Your task to perform on an android device: open device folders in google photos Image 0: 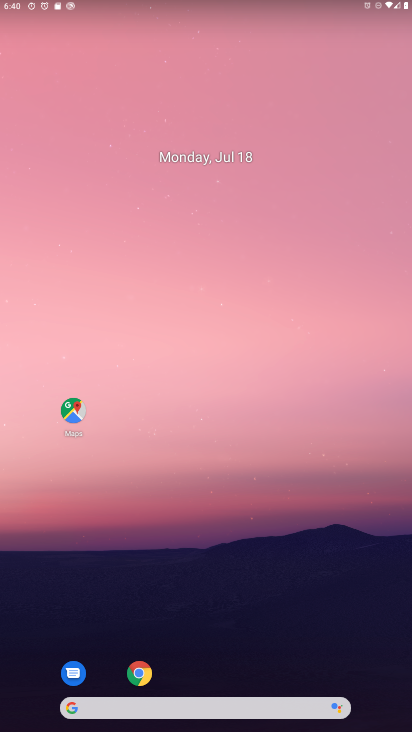
Step 0: drag from (259, 635) to (238, 354)
Your task to perform on an android device: open device folders in google photos Image 1: 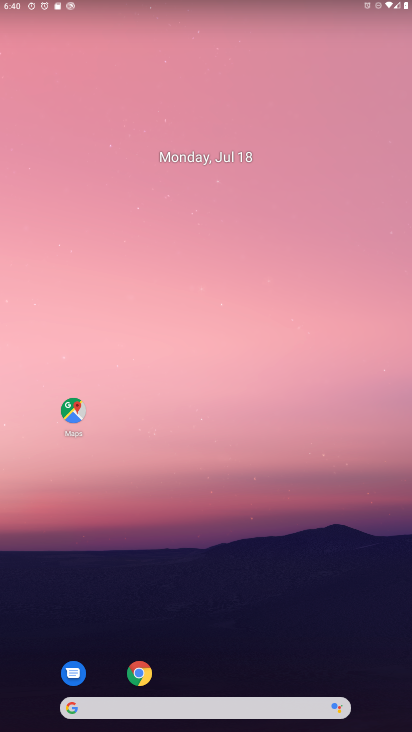
Step 1: drag from (223, 542) to (220, 130)
Your task to perform on an android device: open device folders in google photos Image 2: 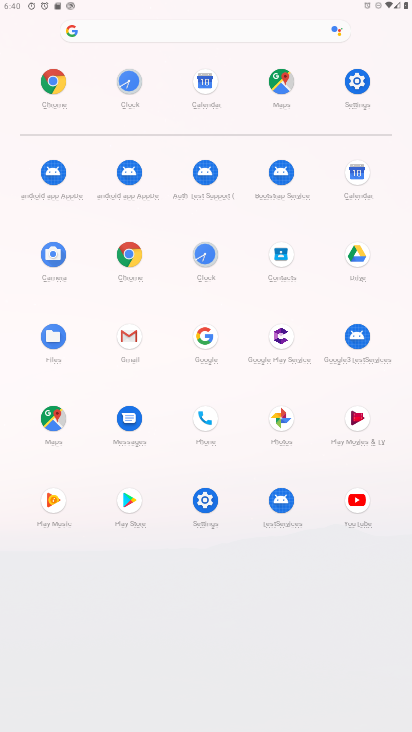
Step 2: click (285, 423)
Your task to perform on an android device: open device folders in google photos Image 3: 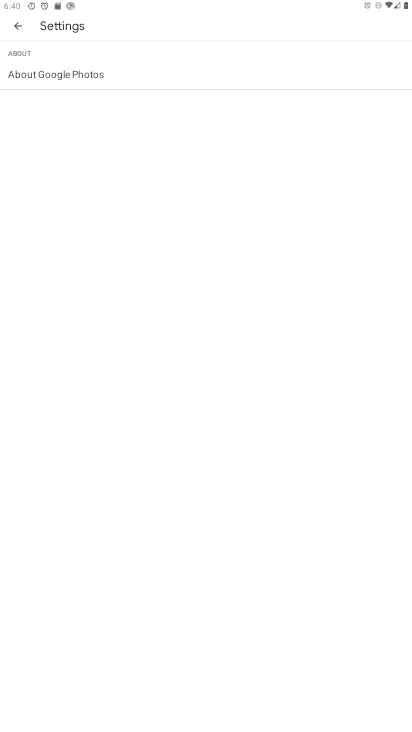
Step 3: click (18, 24)
Your task to perform on an android device: open device folders in google photos Image 4: 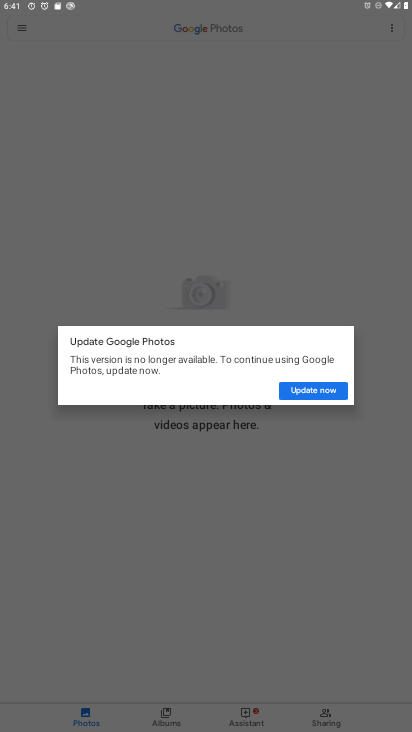
Step 4: click (287, 389)
Your task to perform on an android device: open device folders in google photos Image 5: 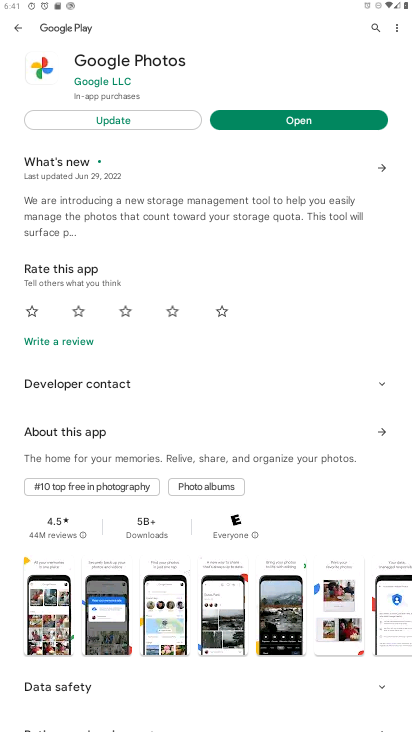
Step 5: click (294, 124)
Your task to perform on an android device: open device folders in google photos Image 6: 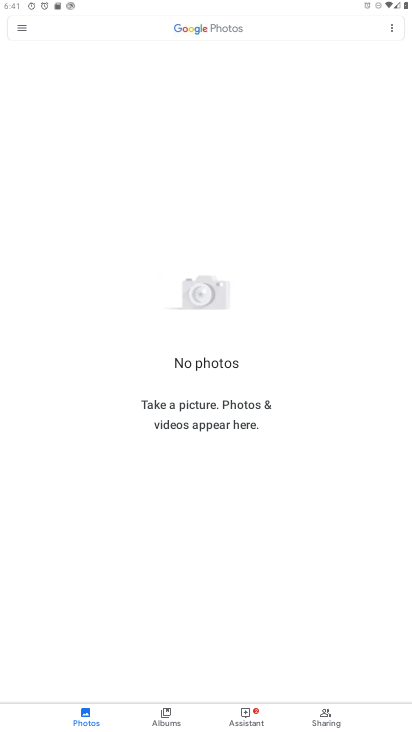
Step 6: click (162, 713)
Your task to perform on an android device: open device folders in google photos Image 7: 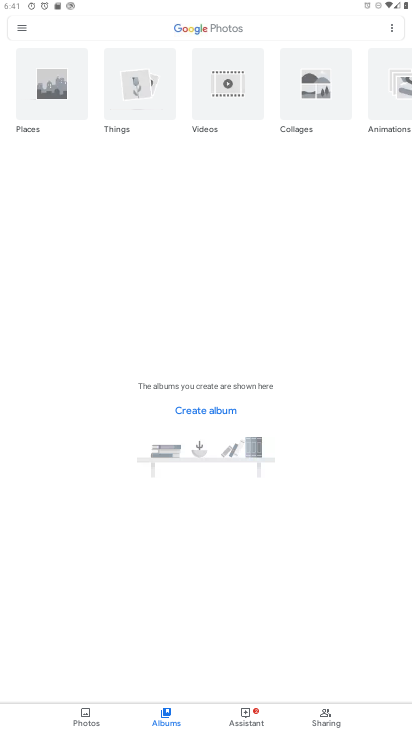
Step 7: task complete